Your task to perform on an android device: toggle data saver in the chrome app Image 0: 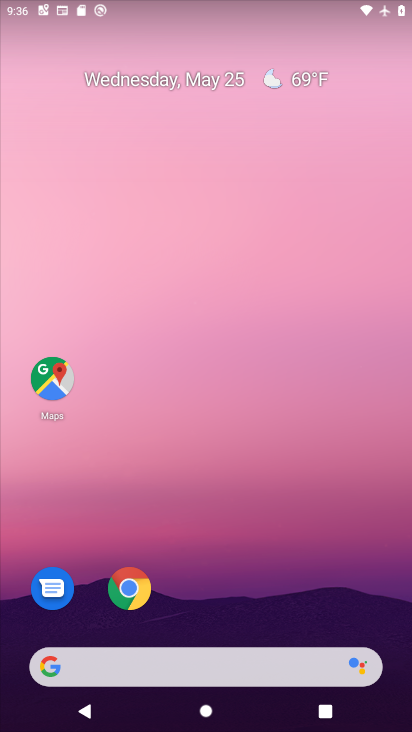
Step 0: drag from (342, 624) to (368, 215)
Your task to perform on an android device: toggle data saver in the chrome app Image 1: 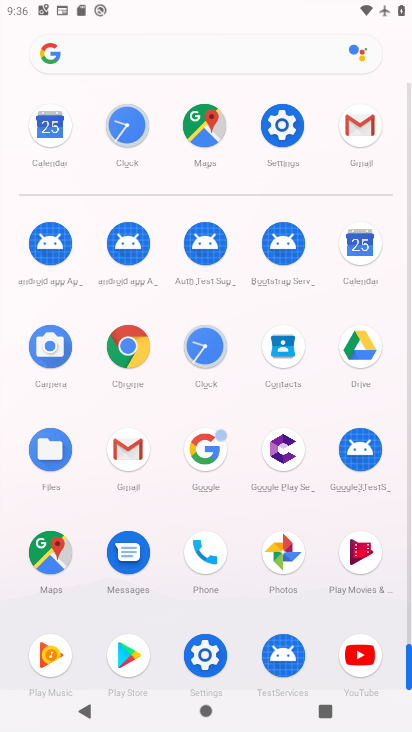
Step 1: click (138, 357)
Your task to perform on an android device: toggle data saver in the chrome app Image 2: 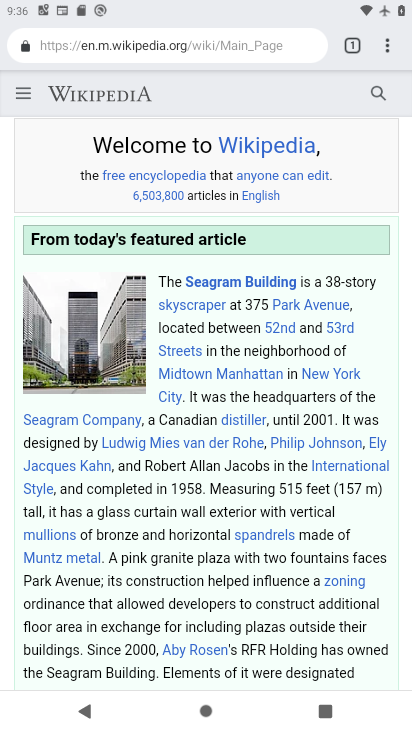
Step 2: click (387, 50)
Your task to perform on an android device: toggle data saver in the chrome app Image 3: 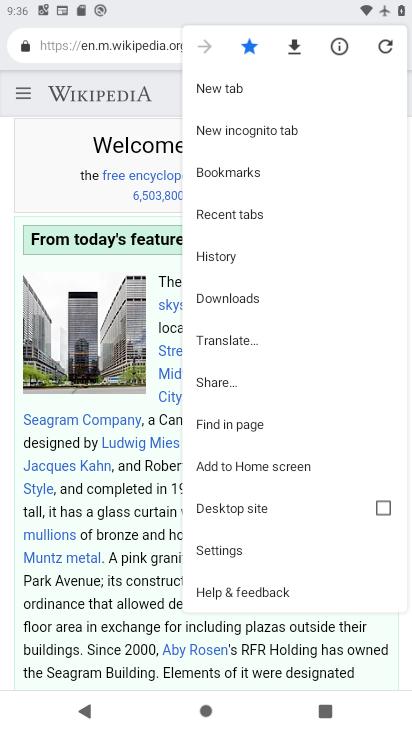
Step 3: click (252, 552)
Your task to perform on an android device: toggle data saver in the chrome app Image 4: 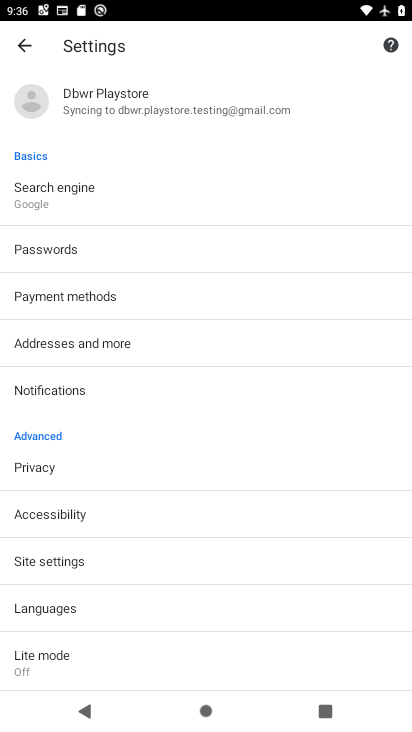
Step 4: drag from (324, 567) to (334, 482)
Your task to perform on an android device: toggle data saver in the chrome app Image 5: 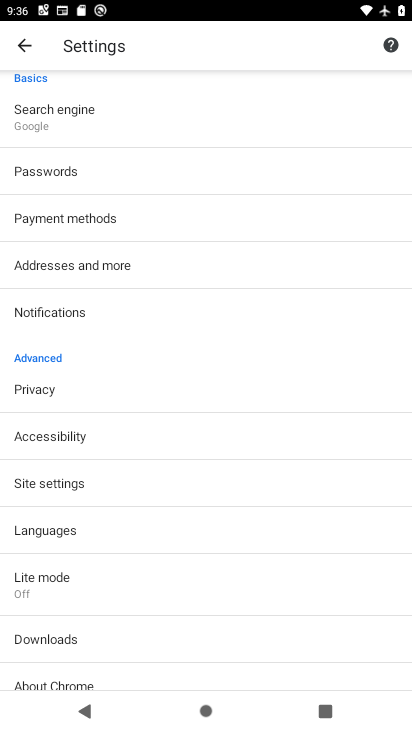
Step 5: drag from (328, 615) to (330, 535)
Your task to perform on an android device: toggle data saver in the chrome app Image 6: 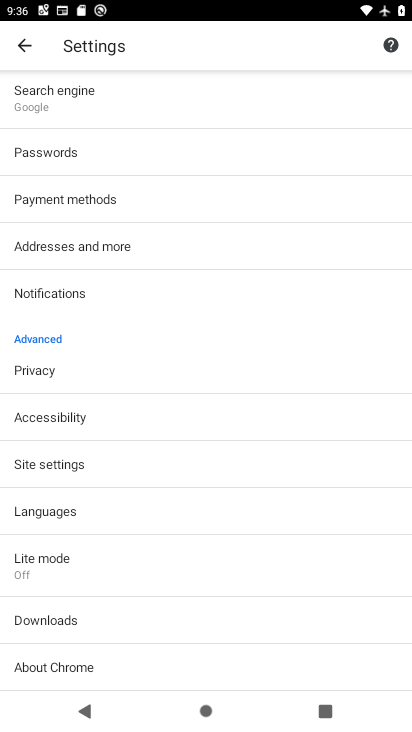
Step 6: click (328, 558)
Your task to perform on an android device: toggle data saver in the chrome app Image 7: 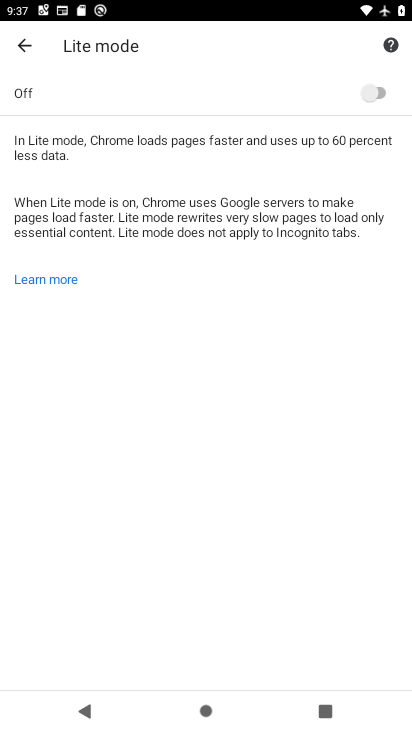
Step 7: click (368, 99)
Your task to perform on an android device: toggle data saver in the chrome app Image 8: 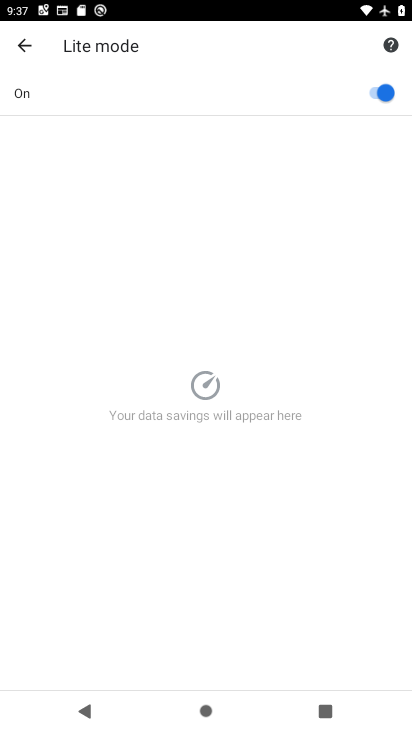
Step 8: task complete